Your task to perform on an android device: move an email to a new category in the gmail app Image 0: 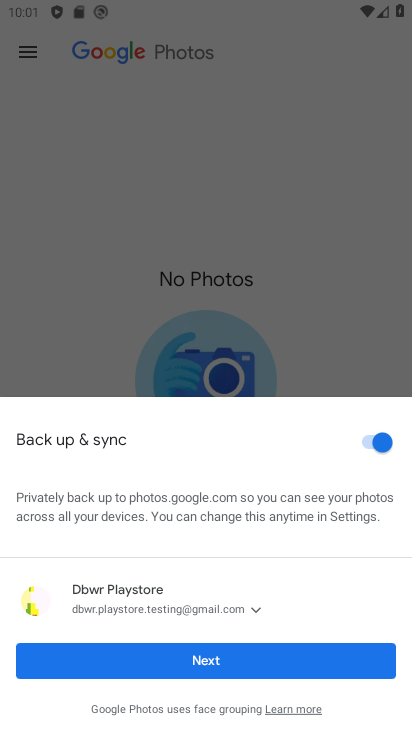
Step 0: press back button
Your task to perform on an android device: move an email to a new category in the gmail app Image 1: 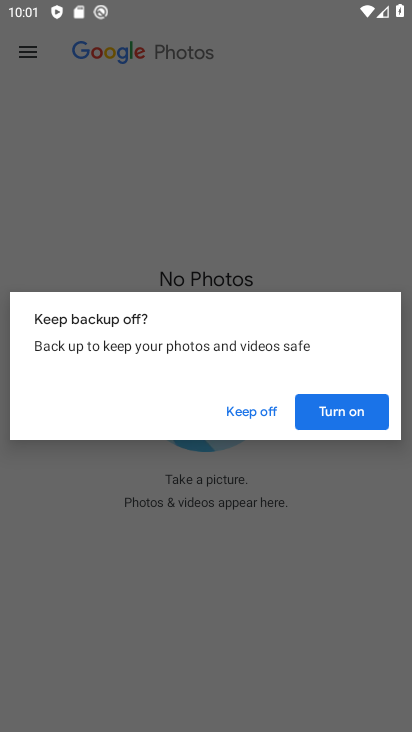
Step 1: press back button
Your task to perform on an android device: move an email to a new category in the gmail app Image 2: 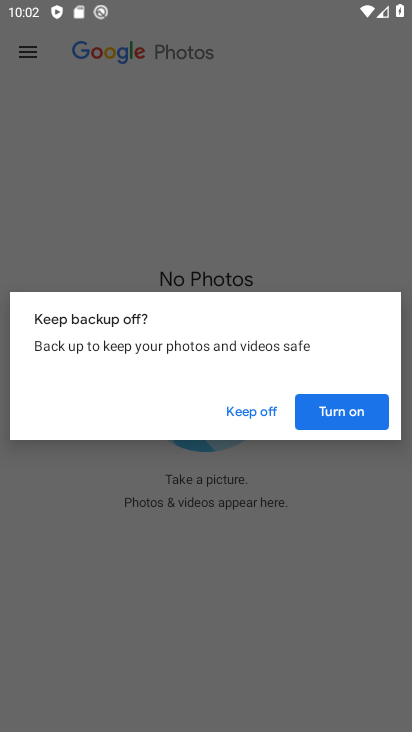
Step 2: press home button
Your task to perform on an android device: move an email to a new category in the gmail app Image 3: 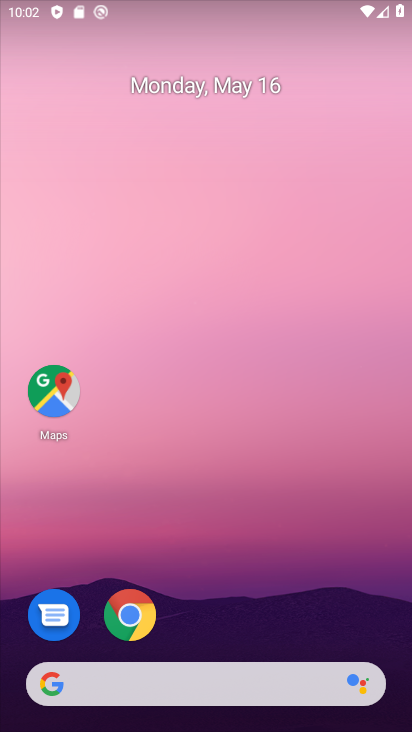
Step 3: drag from (159, 522) to (239, 36)
Your task to perform on an android device: move an email to a new category in the gmail app Image 4: 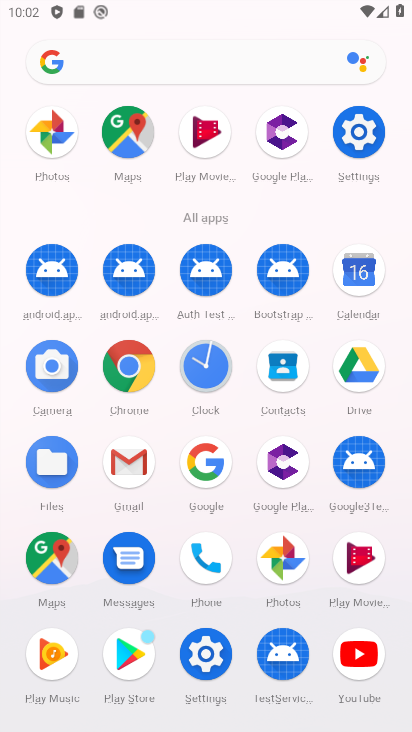
Step 4: click (123, 464)
Your task to perform on an android device: move an email to a new category in the gmail app Image 5: 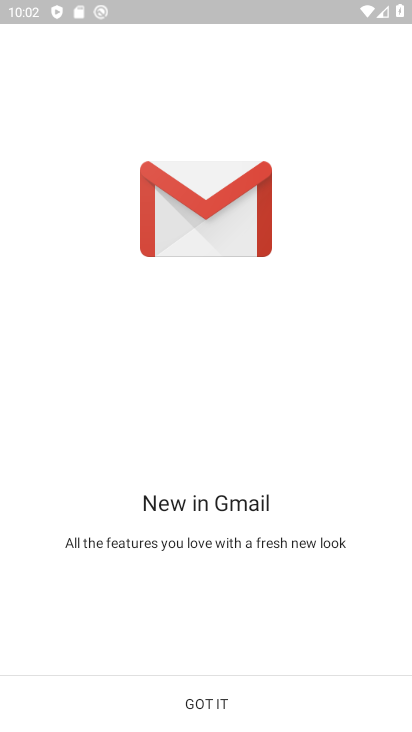
Step 5: click (182, 713)
Your task to perform on an android device: move an email to a new category in the gmail app Image 6: 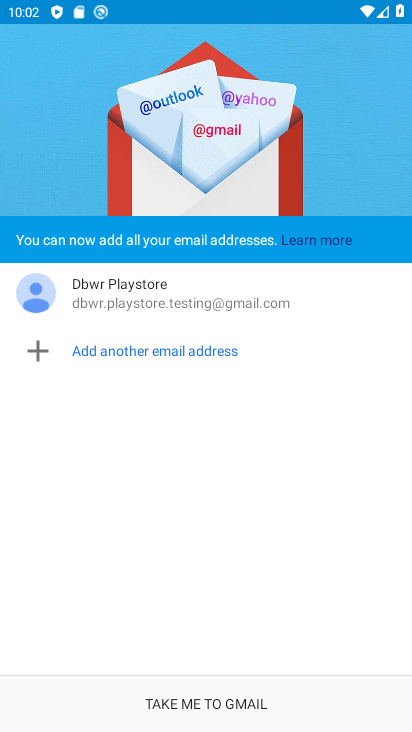
Step 6: click (206, 709)
Your task to perform on an android device: move an email to a new category in the gmail app Image 7: 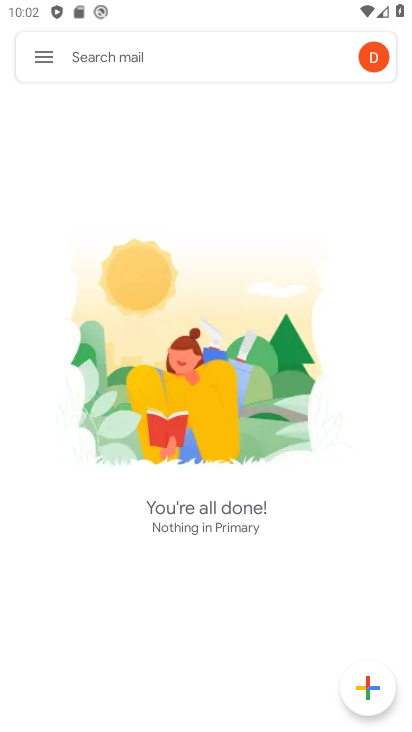
Step 7: click (42, 54)
Your task to perform on an android device: move an email to a new category in the gmail app Image 8: 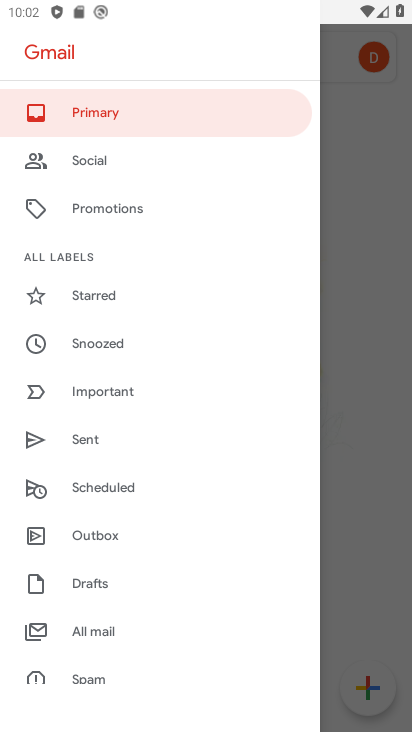
Step 8: click (103, 630)
Your task to perform on an android device: move an email to a new category in the gmail app Image 9: 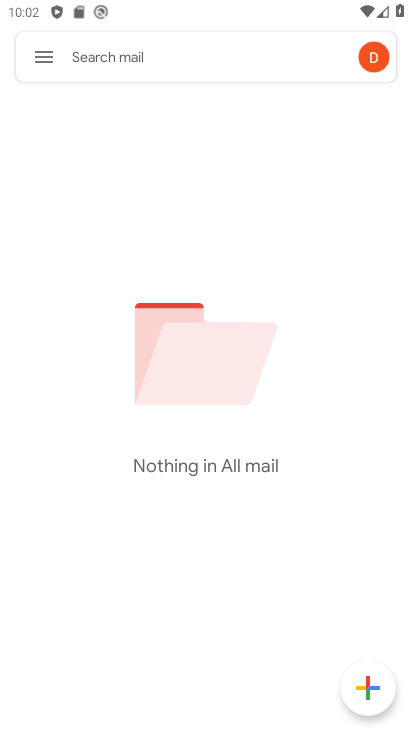
Step 9: click (50, 56)
Your task to perform on an android device: move an email to a new category in the gmail app Image 10: 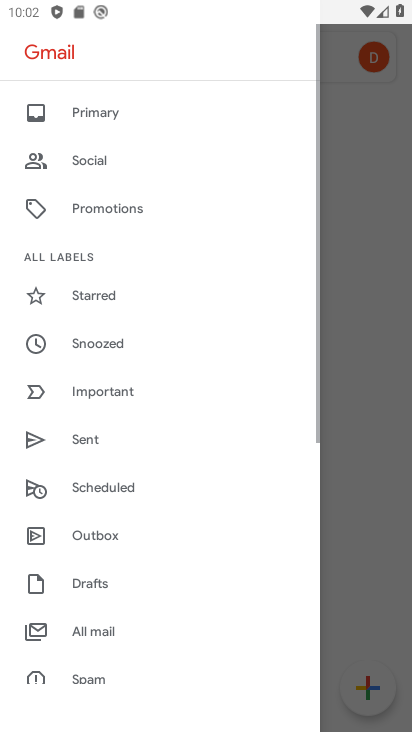
Step 10: click (90, 636)
Your task to perform on an android device: move an email to a new category in the gmail app Image 11: 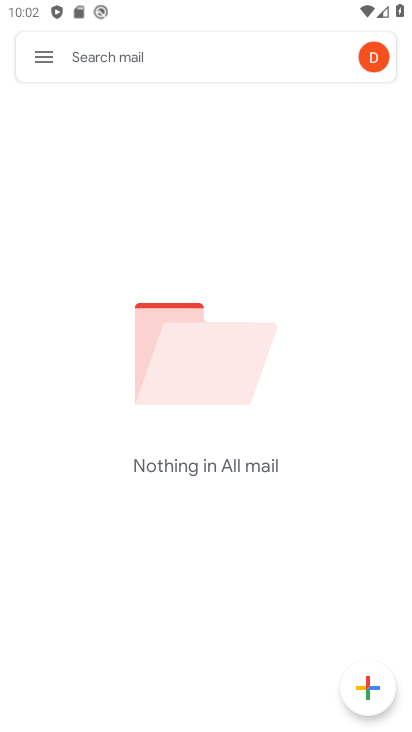
Step 11: task complete